Your task to perform on an android device: Go to Google Image 0: 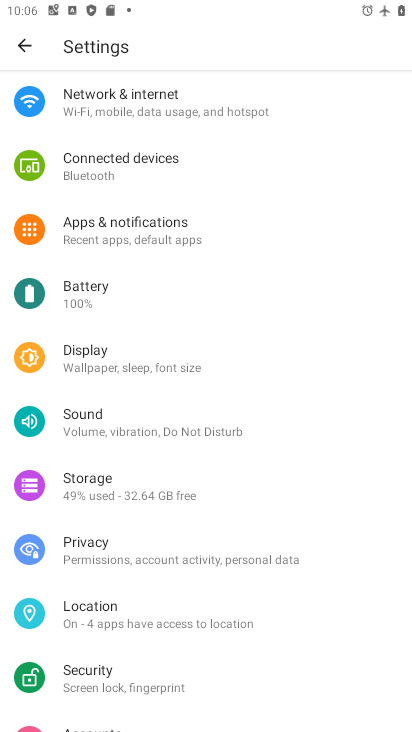
Step 0: press home button
Your task to perform on an android device: Go to Google Image 1: 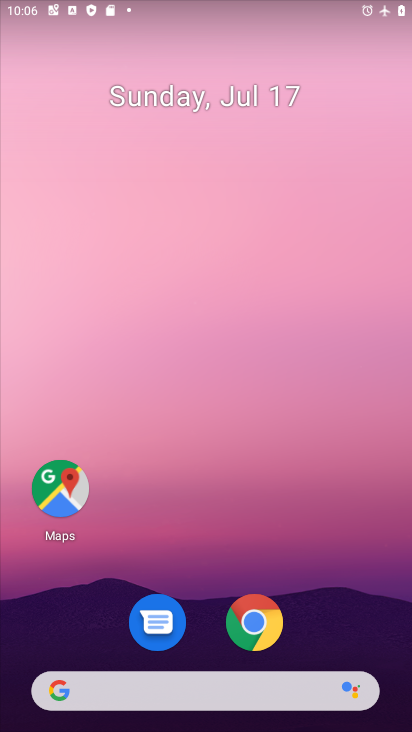
Step 1: drag from (253, 726) to (384, 6)
Your task to perform on an android device: Go to Google Image 2: 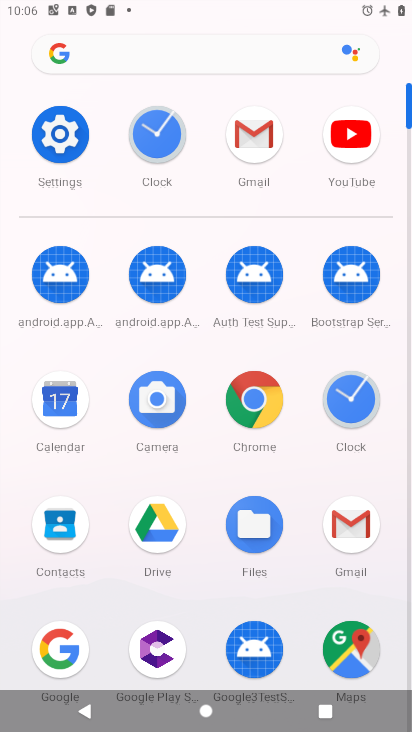
Step 2: click (64, 648)
Your task to perform on an android device: Go to Google Image 3: 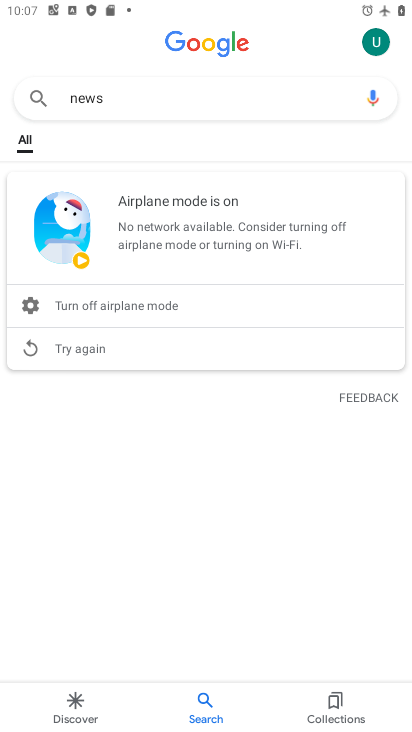
Step 3: task complete